Your task to perform on an android device: Open a new Chrome incognito tab Image 0: 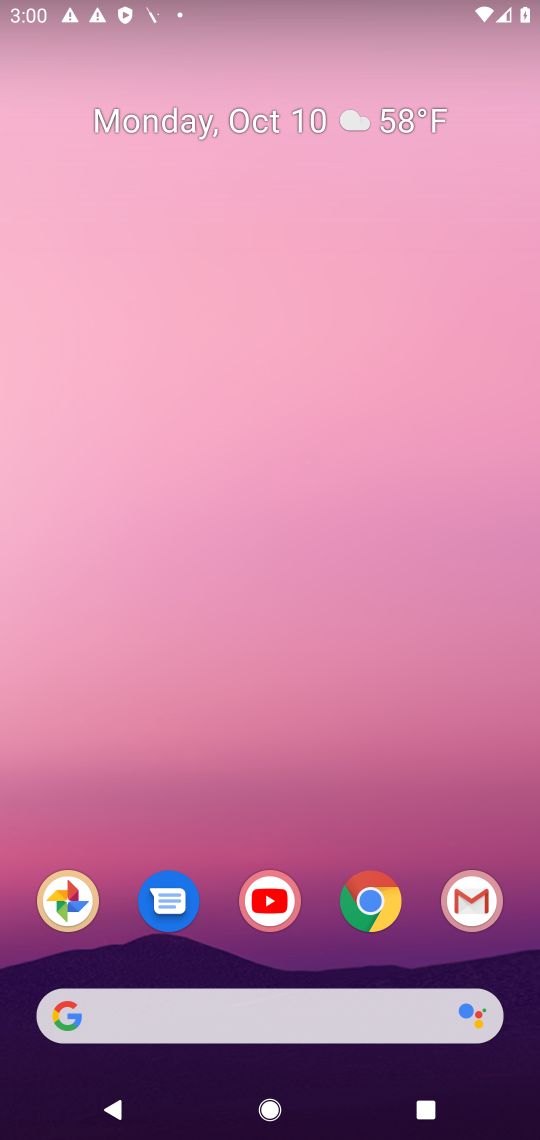
Step 0: click (385, 925)
Your task to perform on an android device: Open a new Chrome incognito tab Image 1: 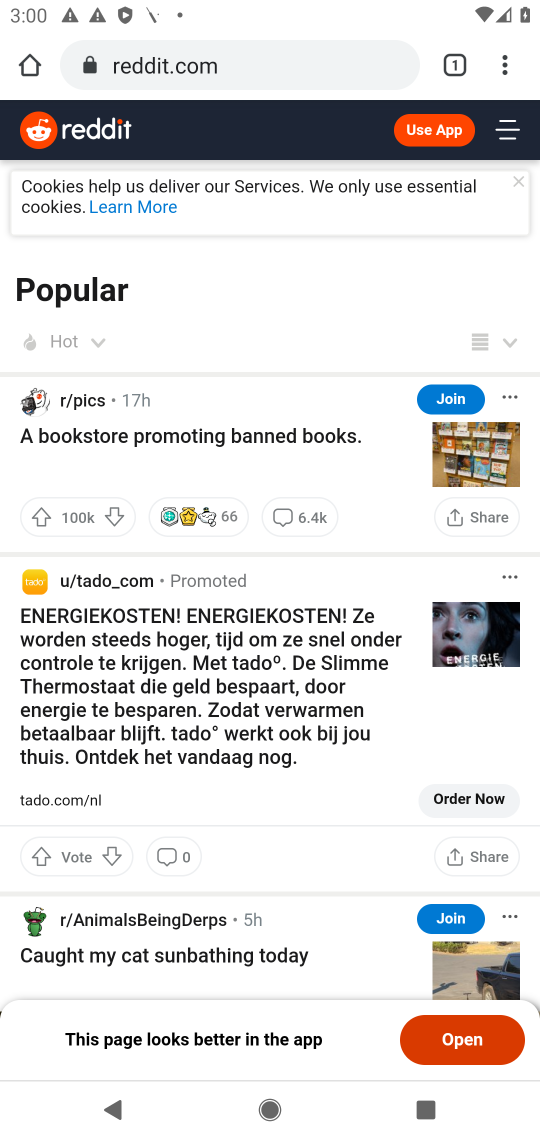
Step 1: click (507, 64)
Your task to perform on an android device: Open a new Chrome incognito tab Image 2: 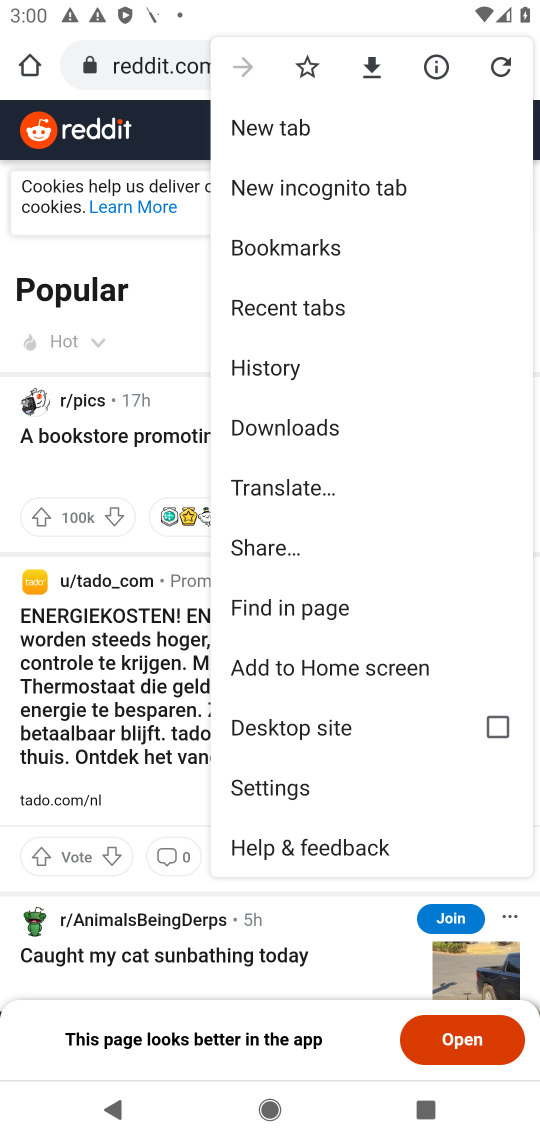
Step 2: click (346, 183)
Your task to perform on an android device: Open a new Chrome incognito tab Image 3: 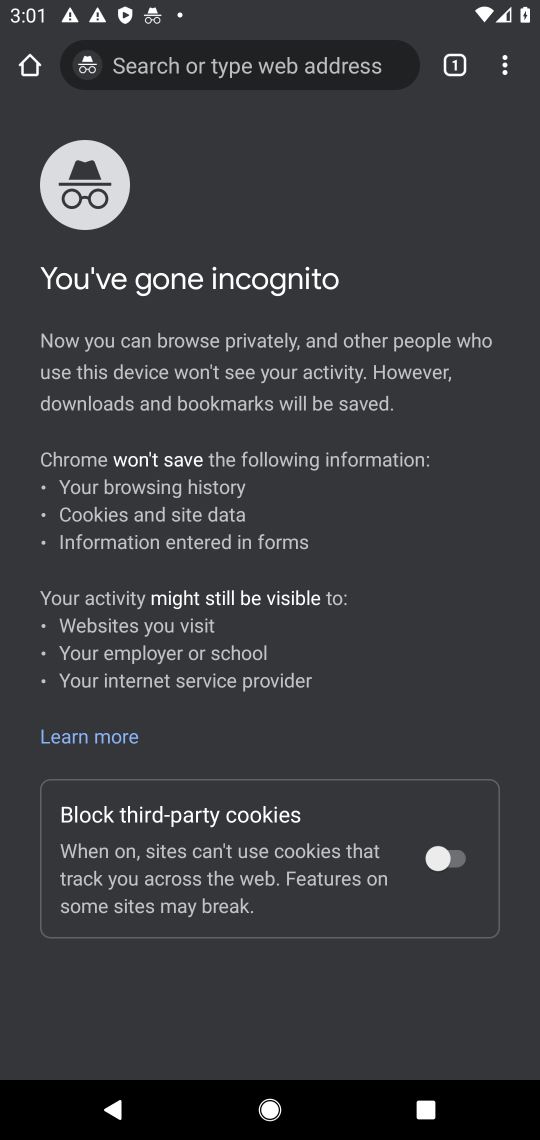
Step 3: task complete